Your task to perform on an android device: choose inbox layout in the gmail app Image 0: 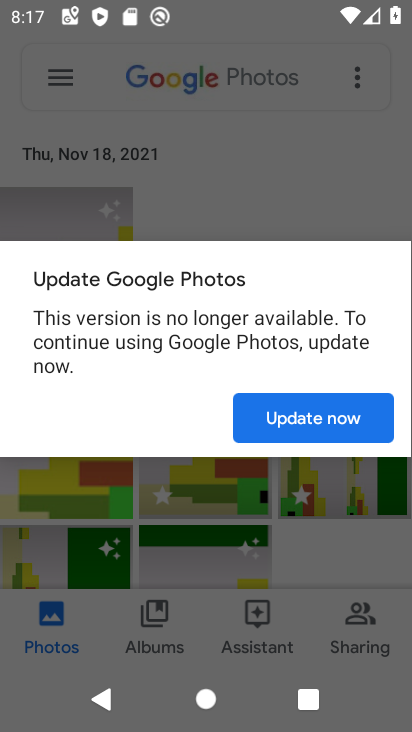
Step 0: press home button
Your task to perform on an android device: choose inbox layout in the gmail app Image 1: 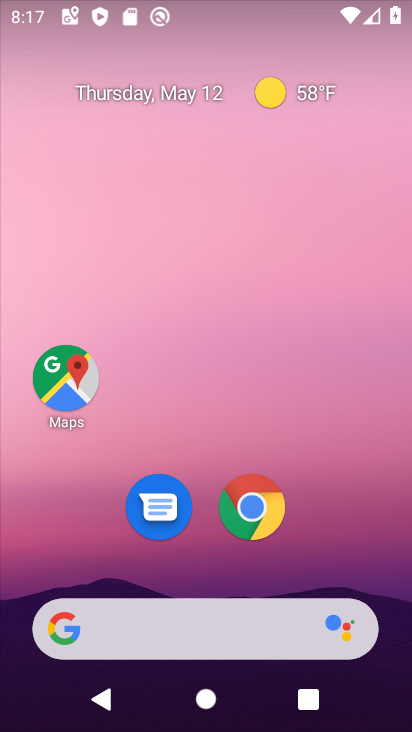
Step 1: drag from (208, 566) to (221, 203)
Your task to perform on an android device: choose inbox layout in the gmail app Image 2: 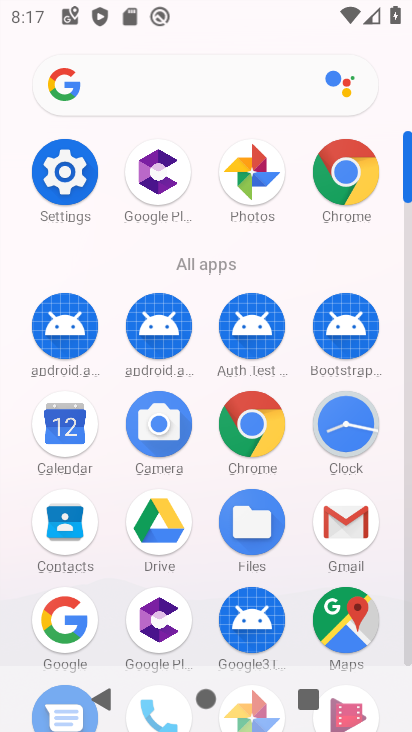
Step 2: click (361, 517)
Your task to perform on an android device: choose inbox layout in the gmail app Image 3: 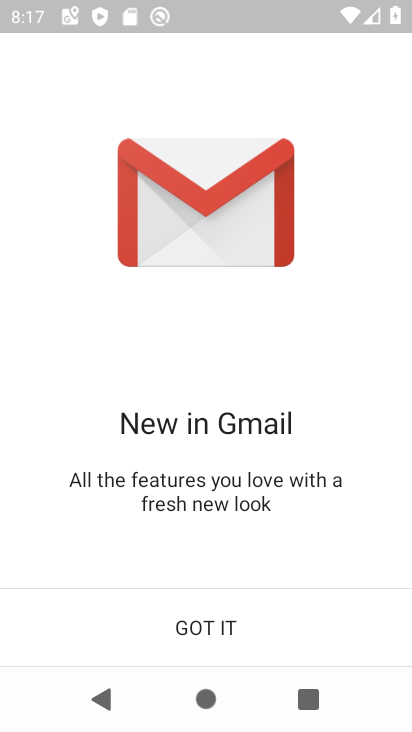
Step 3: click (198, 632)
Your task to perform on an android device: choose inbox layout in the gmail app Image 4: 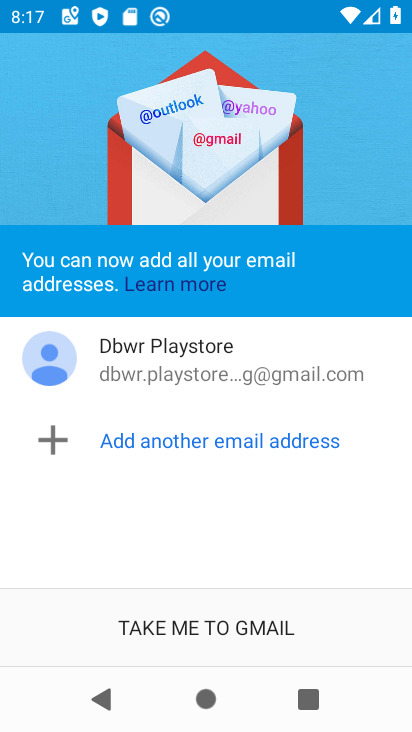
Step 4: click (200, 633)
Your task to perform on an android device: choose inbox layout in the gmail app Image 5: 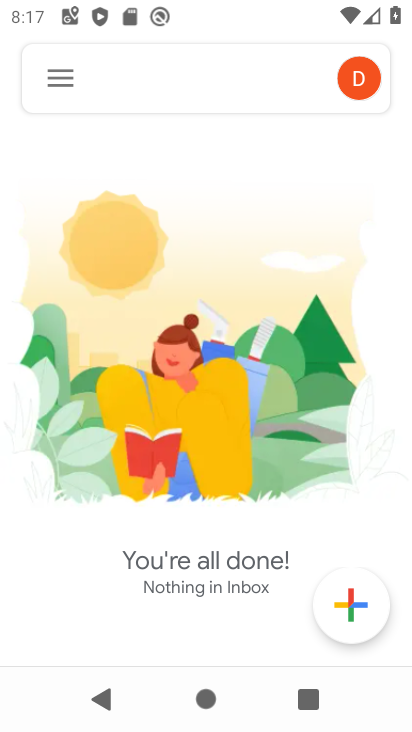
Step 5: click (58, 80)
Your task to perform on an android device: choose inbox layout in the gmail app Image 6: 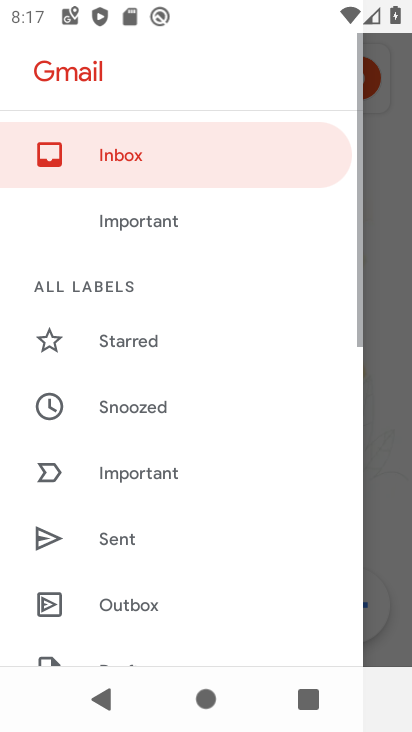
Step 6: drag from (176, 588) to (201, 294)
Your task to perform on an android device: choose inbox layout in the gmail app Image 7: 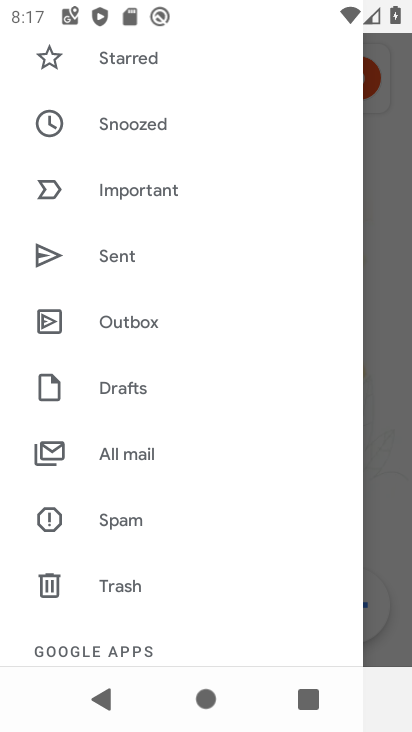
Step 7: drag from (182, 541) to (187, 323)
Your task to perform on an android device: choose inbox layout in the gmail app Image 8: 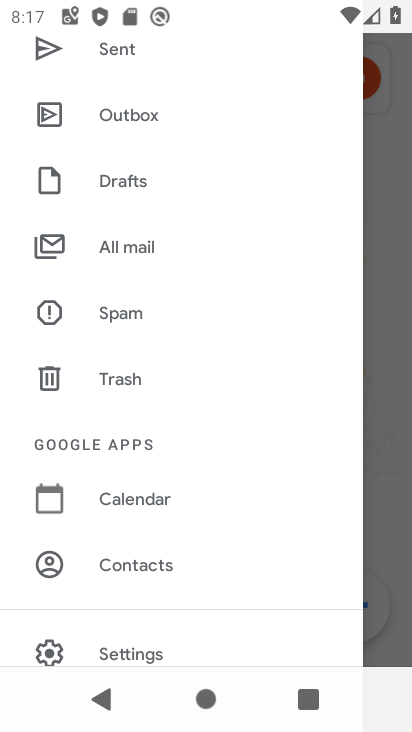
Step 8: click (129, 634)
Your task to perform on an android device: choose inbox layout in the gmail app Image 9: 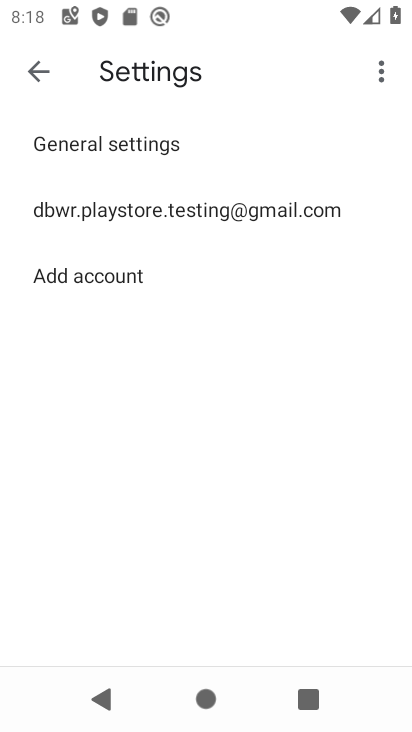
Step 9: click (162, 205)
Your task to perform on an android device: choose inbox layout in the gmail app Image 10: 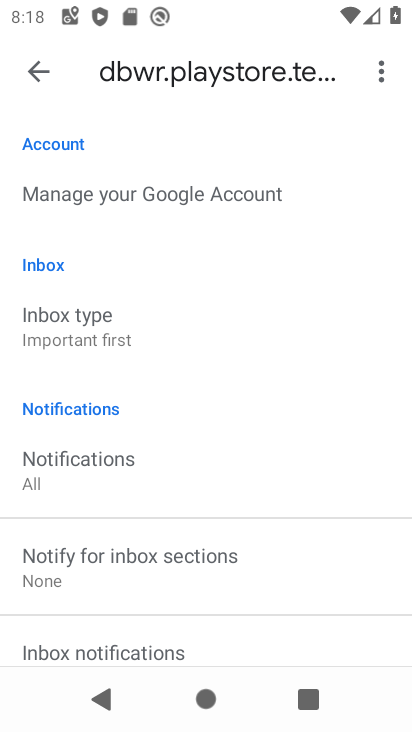
Step 10: drag from (167, 247) to (183, 444)
Your task to perform on an android device: choose inbox layout in the gmail app Image 11: 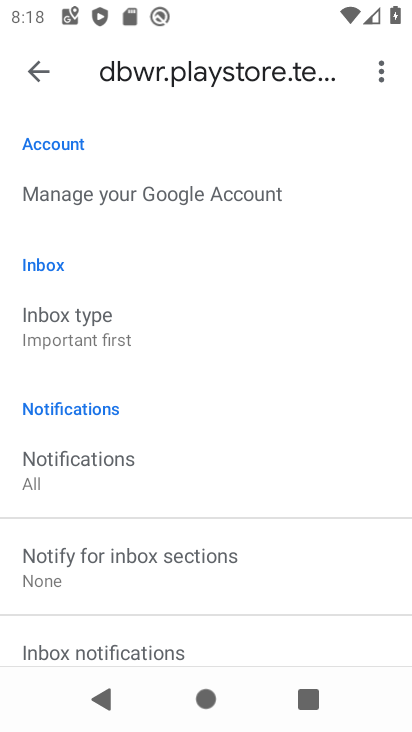
Step 11: click (146, 331)
Your task to perform on an android device: choose inbox layout in the gmail app Image 12: 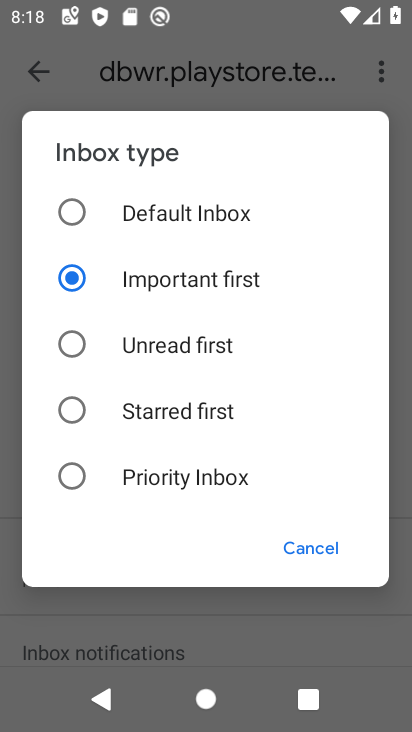
Step 12: click (139, 480)
Your task to perform on an android device: choose inbox layout in the gmail app Image 13: 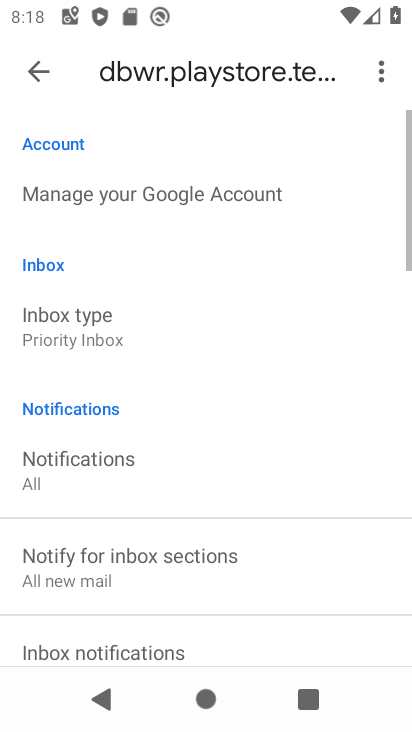
Step 13: task complete